Your task to perform on an android device: Show me popular games on the Play Store Image 0: 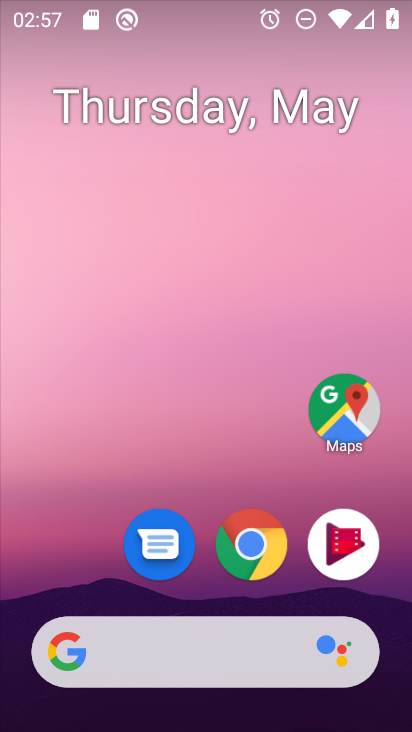
Step 0: drag from (79, 581) to (62, 234)
Your task to perform on an android device: Show me popular games on the Play Store Image 1: 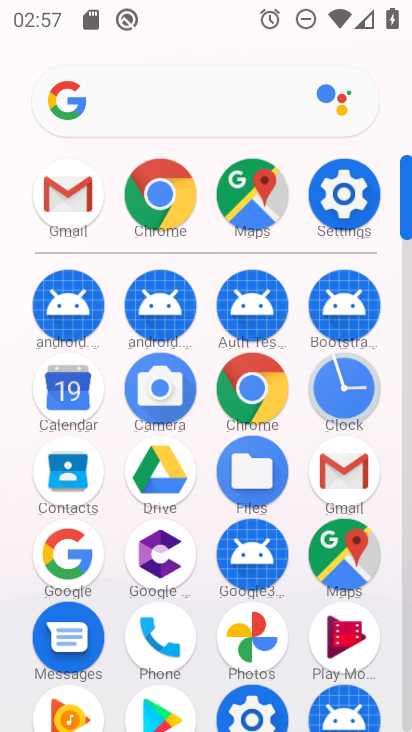
Step 1: drag from (212, 676) to (192, 470)
Your task to perform on an android device: Show me popular games on the Play Store Image 2: 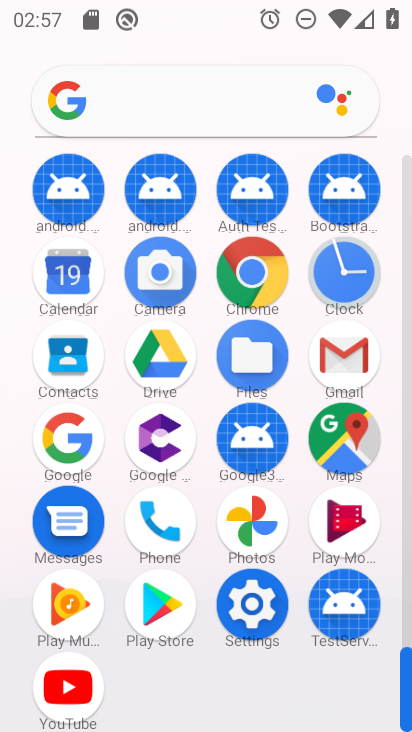
Step 2: click (168, 613)
Your task to perform on an android device: Show me popular games on the Play Store Image 3: 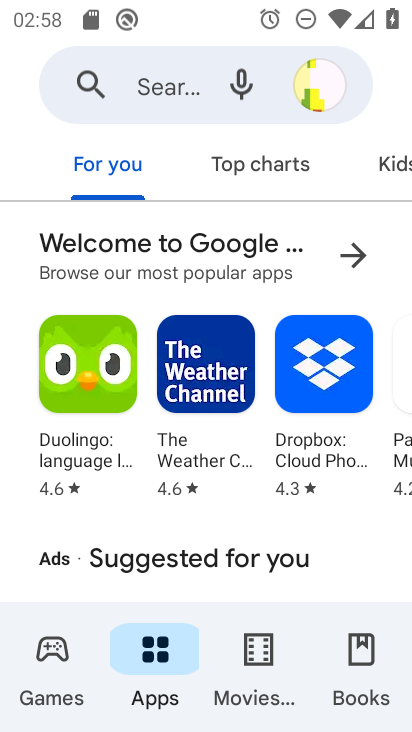
Step 3: click (51, 653)
Your task to perform on an android device: Show me popular games on the Play Store Image 4: 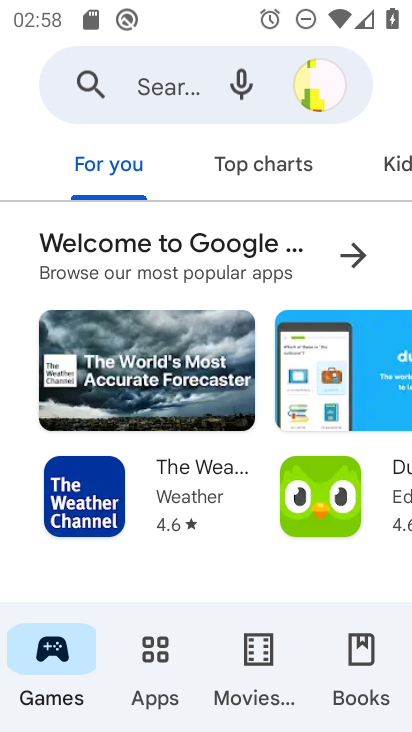
Step 4: task complete